Your task to perform on an android device: find photos in the google photos app Image 0: 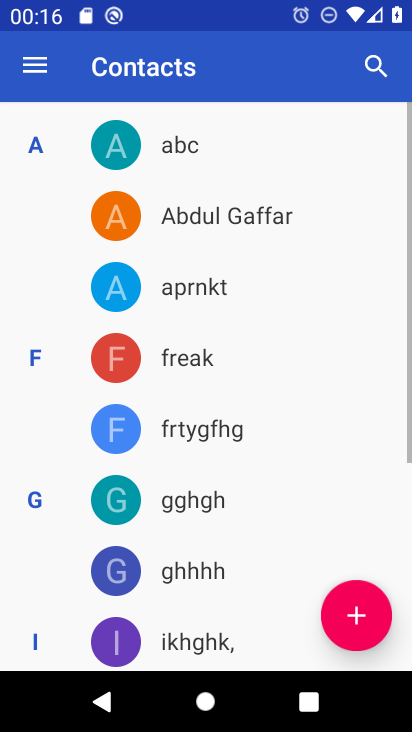
Step 0: press home button
Your task to perform on an android device: find photos in the google photos app Image 1: 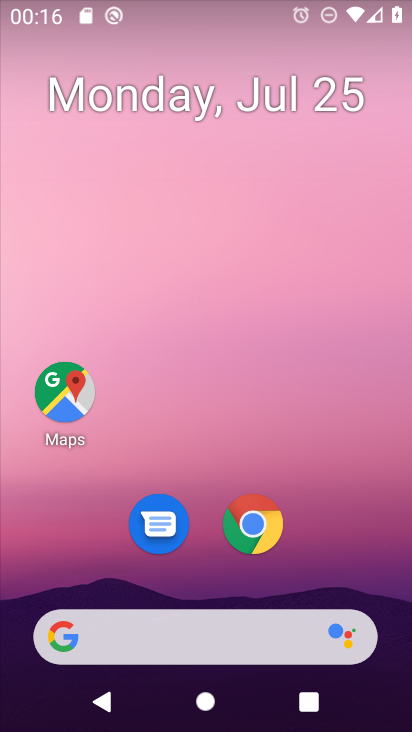
Step 1: drag from (237, 647) to (358, 12)
Your task to perform on an android device: find photos in the google photos app Image 2: 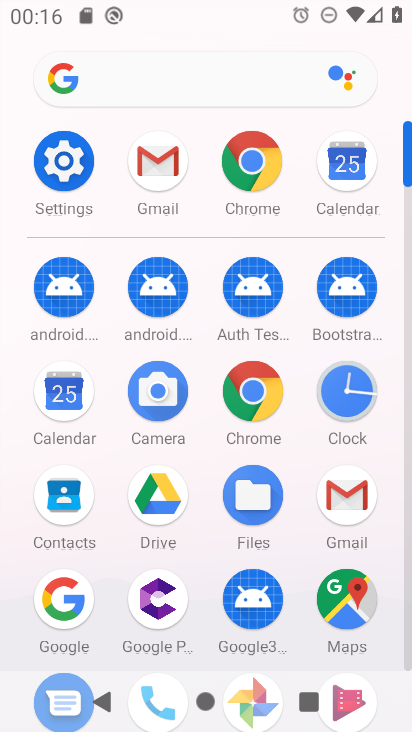
Step 2: drag from (208, 547) to (298, 229)
Your task to perform on an android device: find photos in the google photos app Image 3: 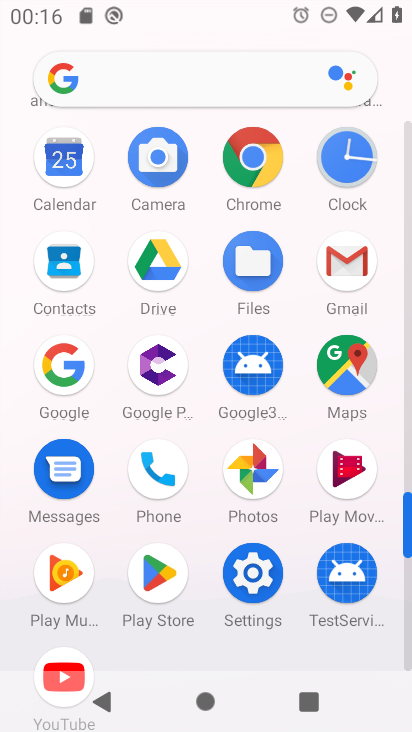
Step 3: click (248, 483)
Your task to perform on an android device: find photos in the google photos app Image 4: 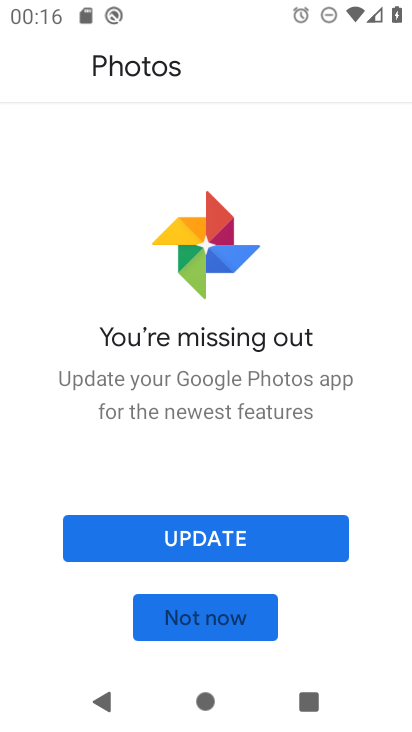
Step 4: click (225, 619)
Your task to perform on an android device: find photos in the google photos app Image 5: 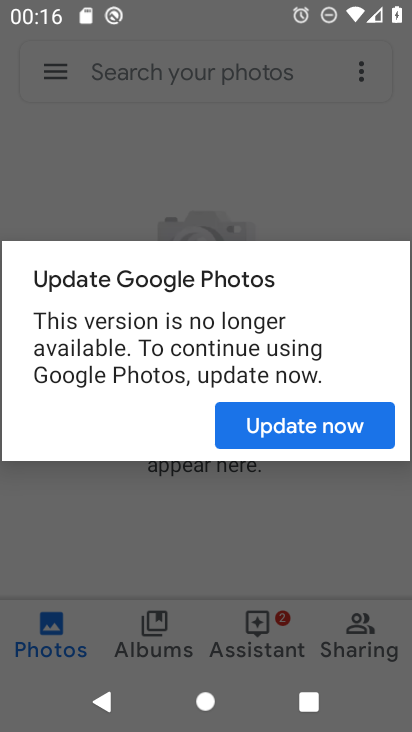
Step 5: click (284, 431)
Your task to perform on an android device: find photos in the google photos app Image 6: 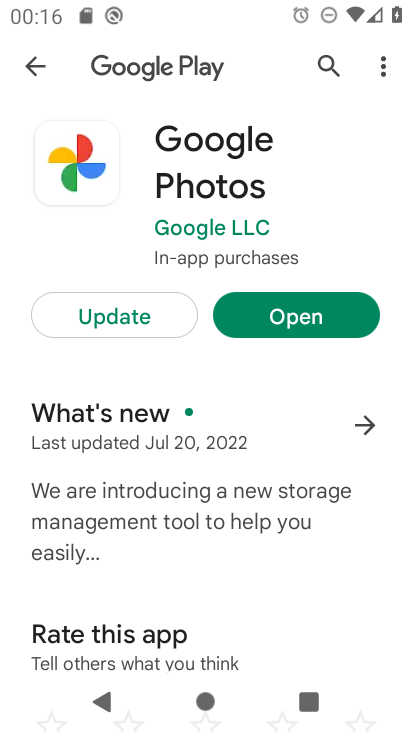
Step 6: click (314, 327)
Your task to perform on an android device: find photos in the google photos app Image 7: 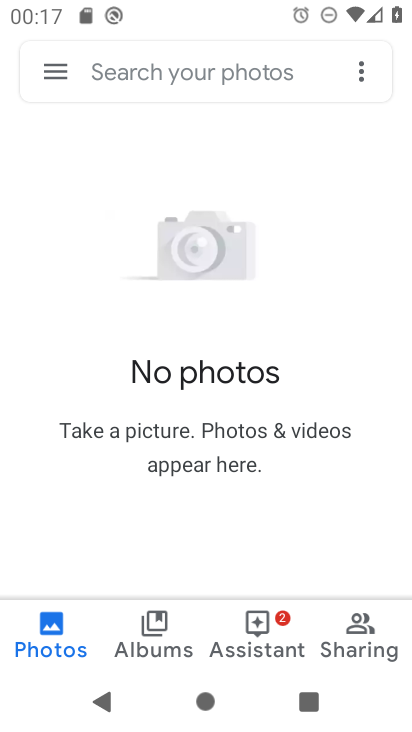
Step 7: task complete